Your task to perform on an android device: Open Chrome and go to settings Image 0: 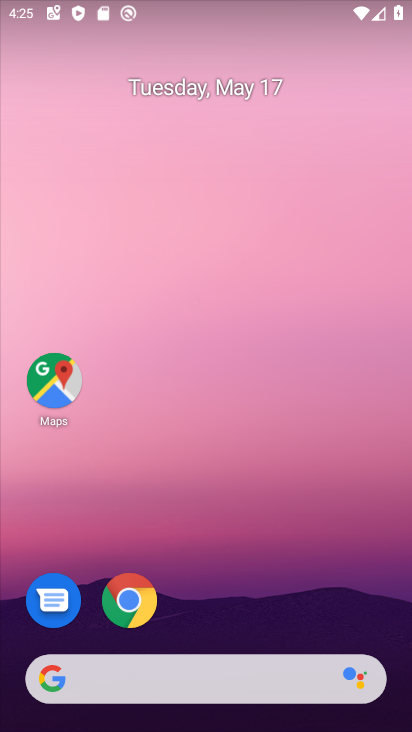
Step 0: click (130, 601)
Your task to perform on an android device: Open Chrome and go to settings Image 1: 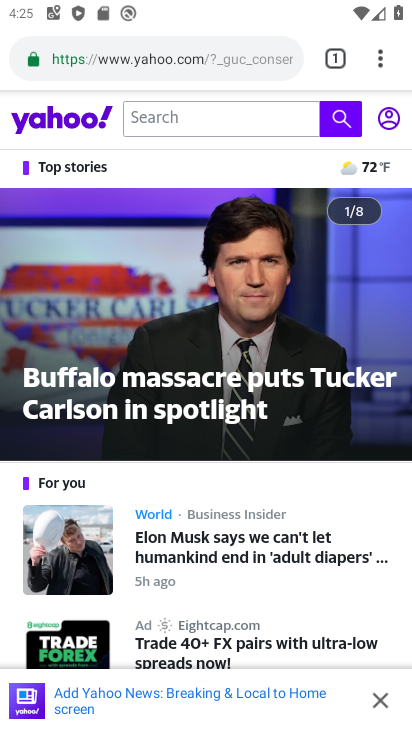
Step 1: click (379, 68)
Your task to perform on an android device: Open Chrome and go to settings Image 2: 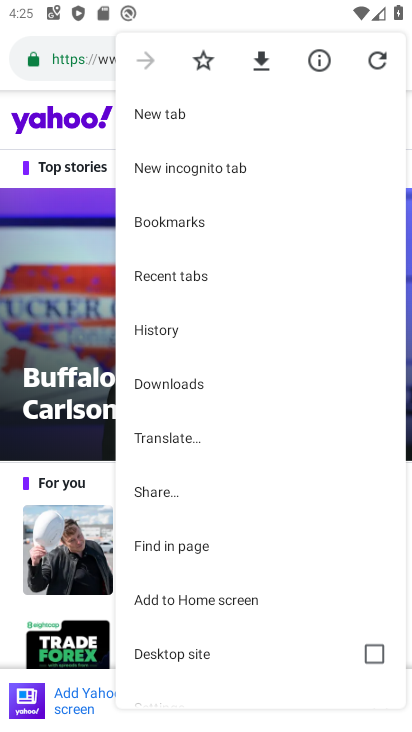
Step 2: drag from (273, 639) to (281, 79)
Your task to perform on an android device: Open Chrome and go to settings Image 3: 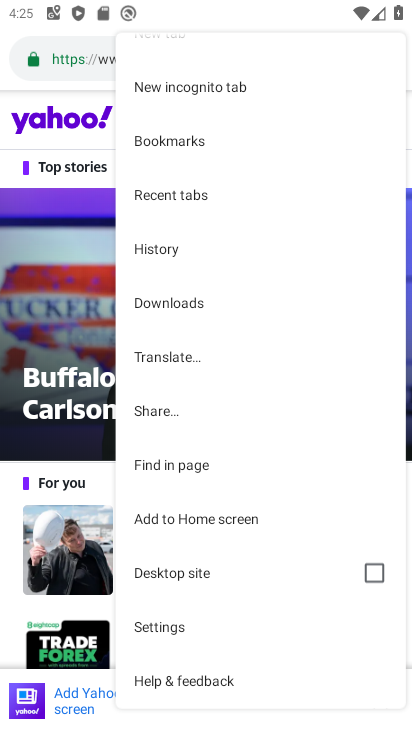
Step 3: click (157, 624)
Your task to perform on an android device: Open Chrome and go to settings Image 4: 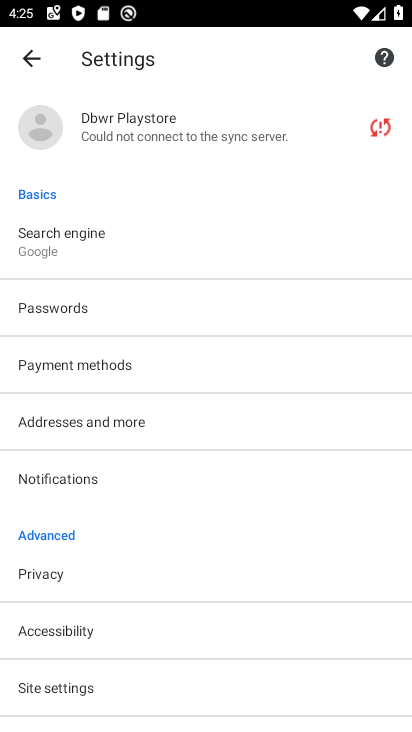
Step 4: task complete